Your task to perform on an android device: Open Chrome and go to settings Image 0: 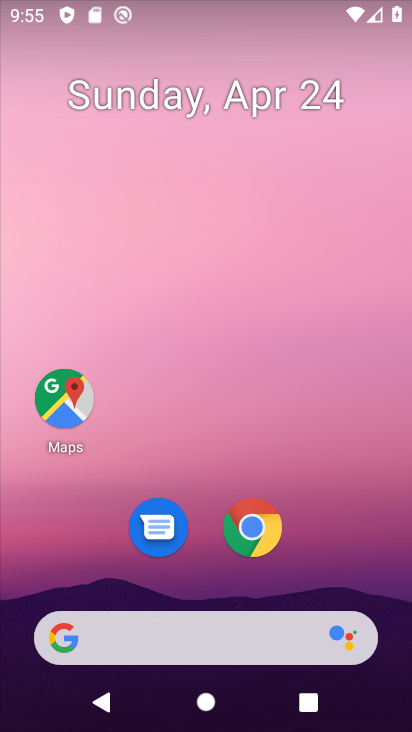
Step 0: click (250, 530)
Your task to perform on an android device: Open Chrome and go to settings Image 1: 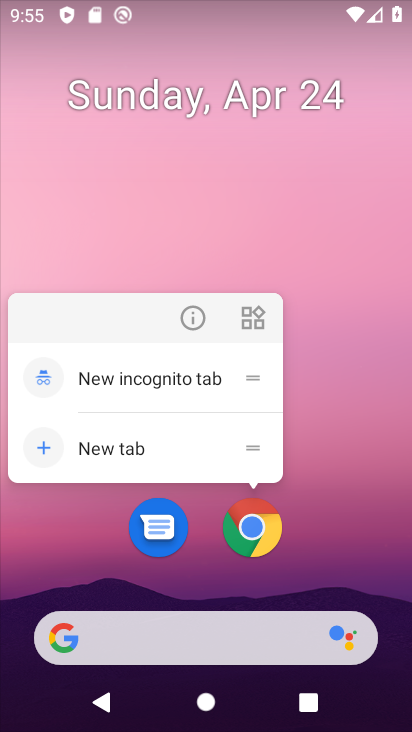
Step 1: click (259, 544)
Your task to perform on an android device: Open Chrome and go to settings Image 2: 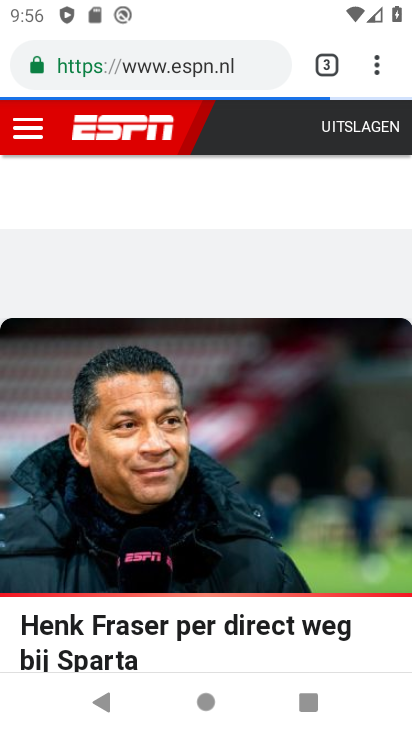
Step 2: task complete